Your task to perform on an android device: Open Chrome and go to settings Image 0: 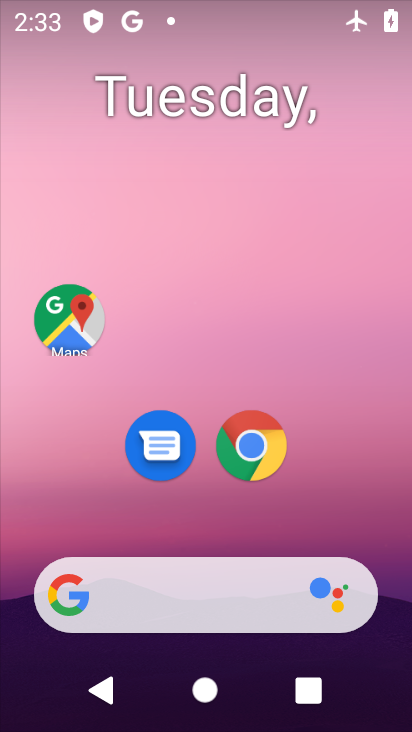
Step 0: click (264, 444)
Your task to perform on an android device: Open Chrome and go to settings Image 1: 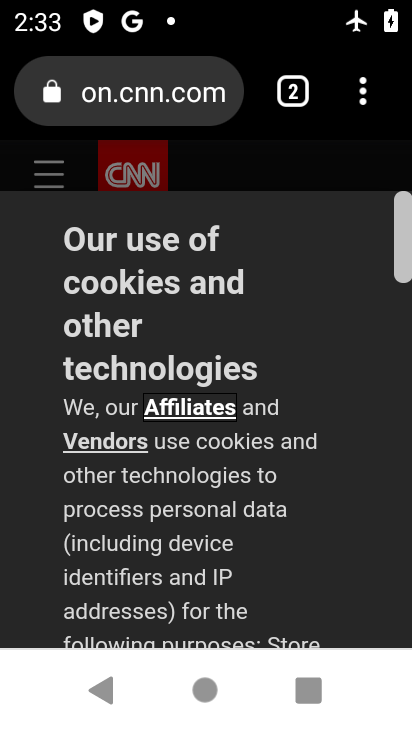
Step 1: click (366, 93)
Your task to perform on an android device: Open Chrome and go to settings Image 2: 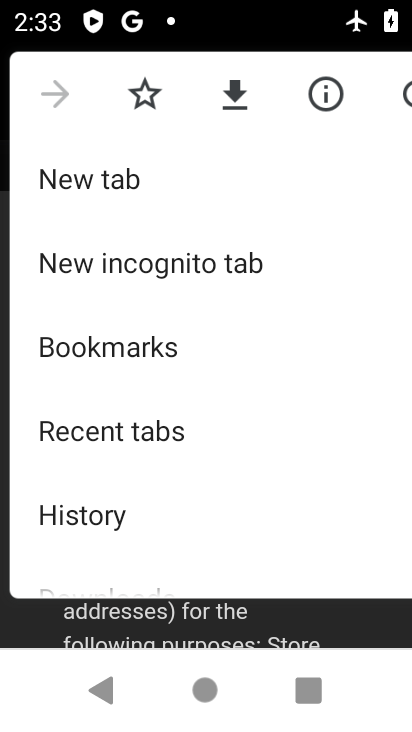
Step 2: drag from (226, 573) to (223, 180)
Your task to perform on an android device: Open Chrome and go to settings Image 3: 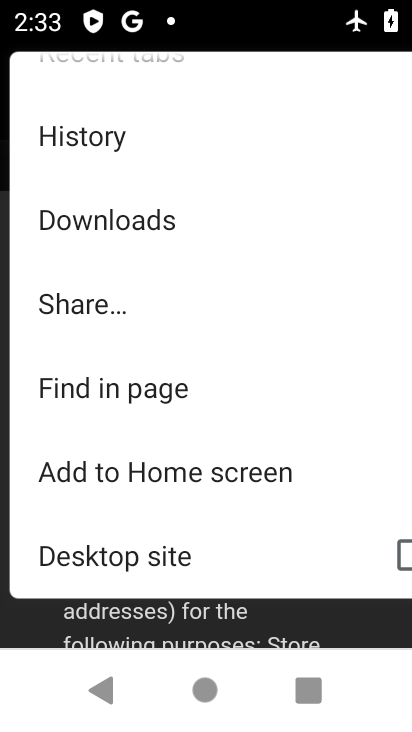
Step 3: drag from (230, 545) to (278, 84)
Your task to perform on an android device: Open Chrome and go to settings Image 4: 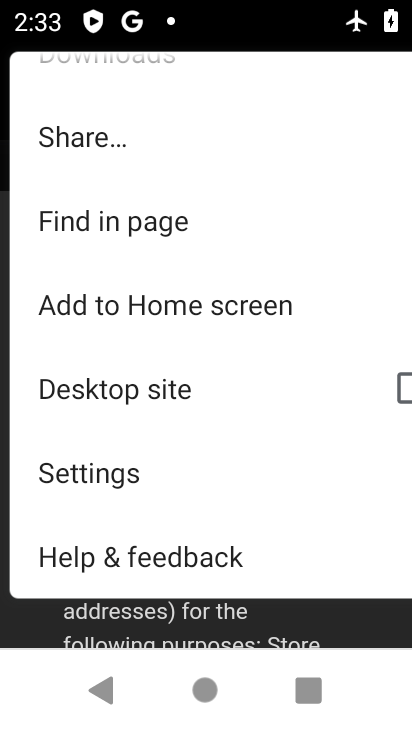
Step 4: click (104, 475)
Your task to perform on an android device: Open Chrome and go to settings Image 5: 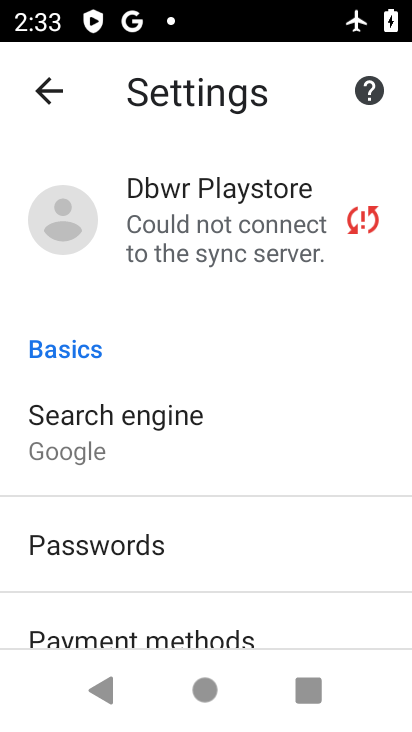
Step 5: task complete